Your task to perform on an android device: turn off translation in the chrome app Image 0: 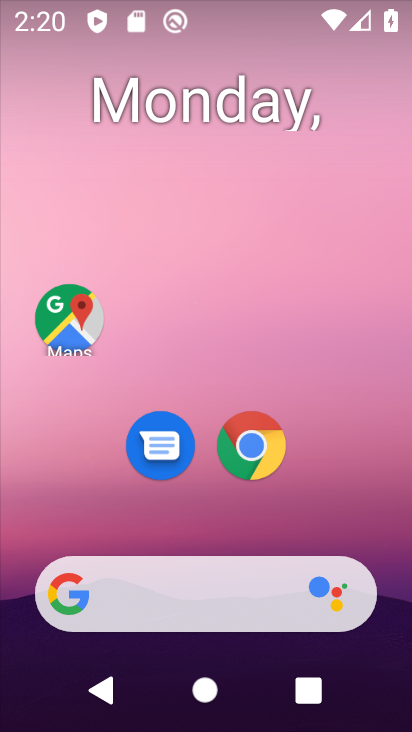
Step 0: click (258, 441)
Your task to perform on an android device: turn off translation in the chrome app Image 1: 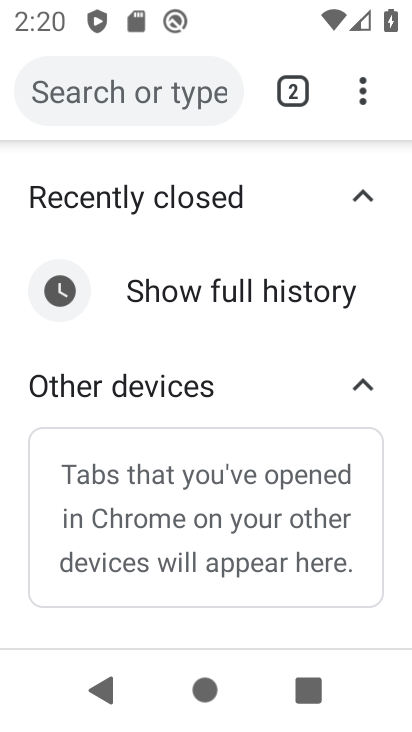
Step 1: click (354, 84)
Your task to perform on an android device: turn off translation in the chrome app Image 2: 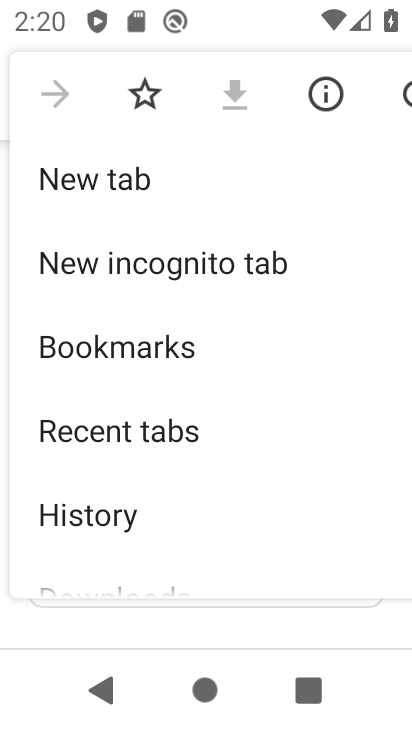
Step 2: drag from (100, 543) to (218, 136)
Your task to perform on an android device: turn off translation in the chrome app Image 3: 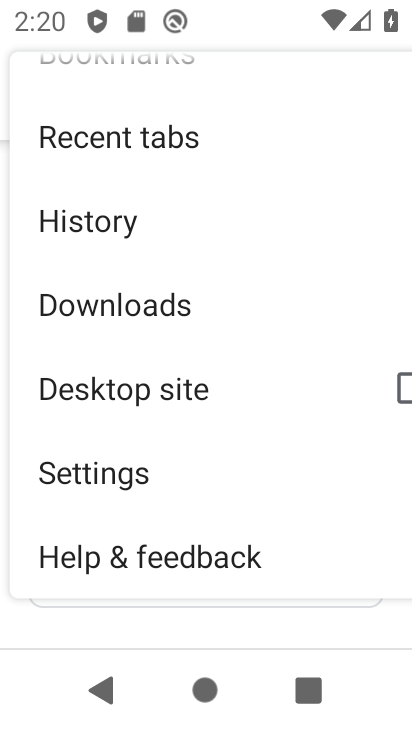
Step 3: click (100, 468)
Your task to perform on an android device: turn off translation in the chrome app Image 4: 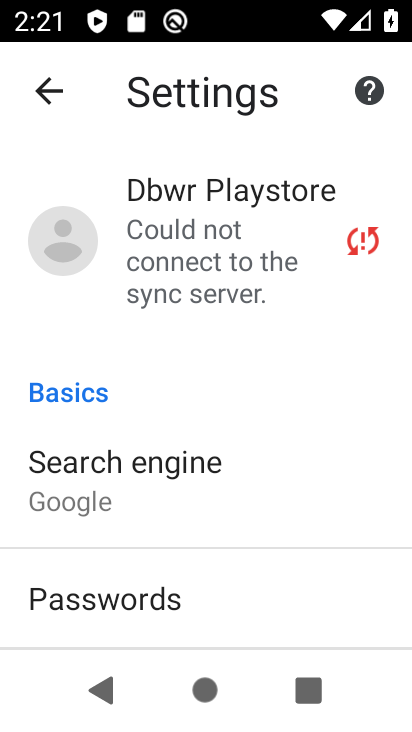
Step 4: drag from (73, 548) to (140, 168)
Your task to perform on an android device: turn off translation in the chrome app Image 5: 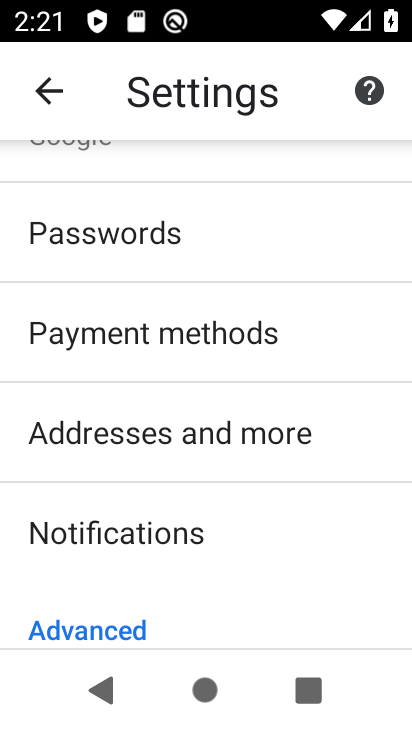
Step 5: drag from (94, 578) to (232, 231)
Your task to perform on an android device: turn off translation in the chrome app Image 6: 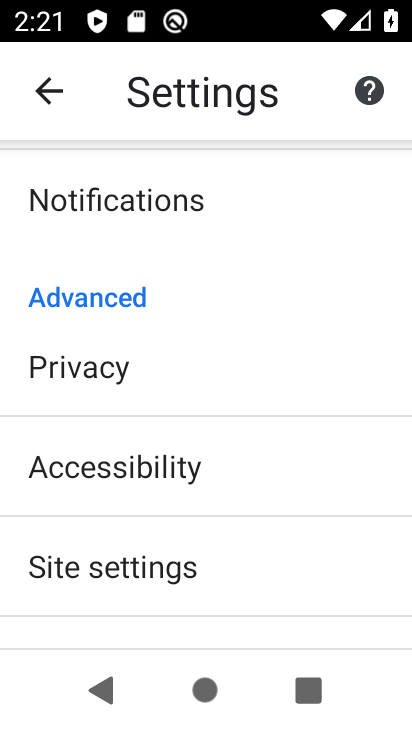
Step 6: drag from (110, 601) to (228, 216)
Your task to perform on an android device: turn off translation in the chrome app Image 7: 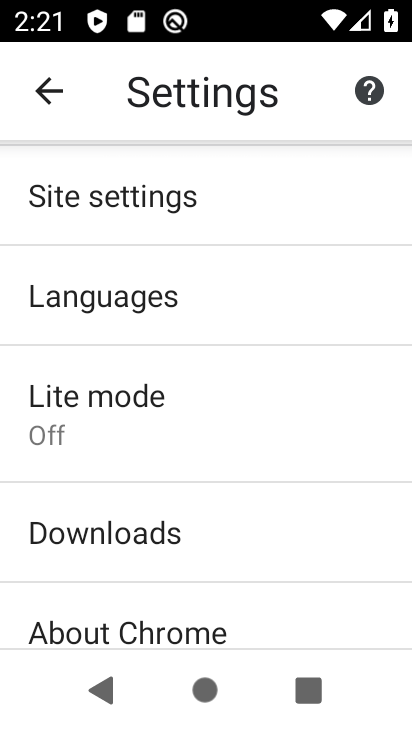
Step 7: click (129, 316)
Your task to perform on an android device: turn off translation in the chrome app Image 8: 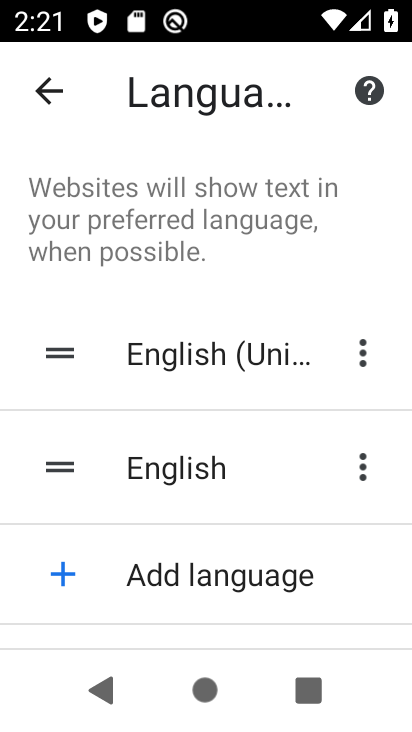
Step 8: drag from (104, 588) to (167, 201)
Your task to perform on an android device: turn off translation in the chrome app Image 9: 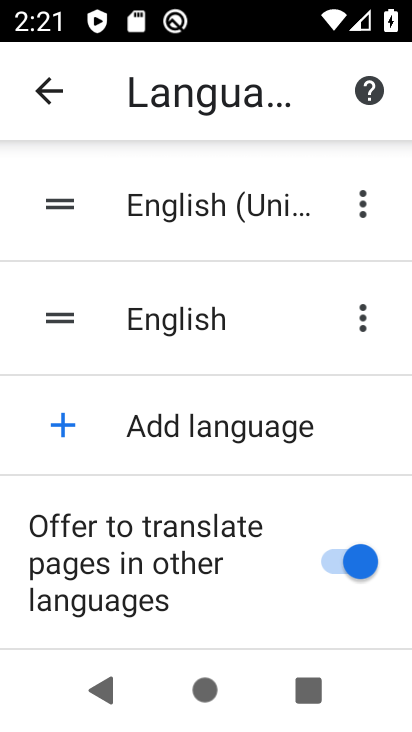
Step 9: click (337, 554)
Your task to perform on an android device: turn off translation in the chrome app Image 10: 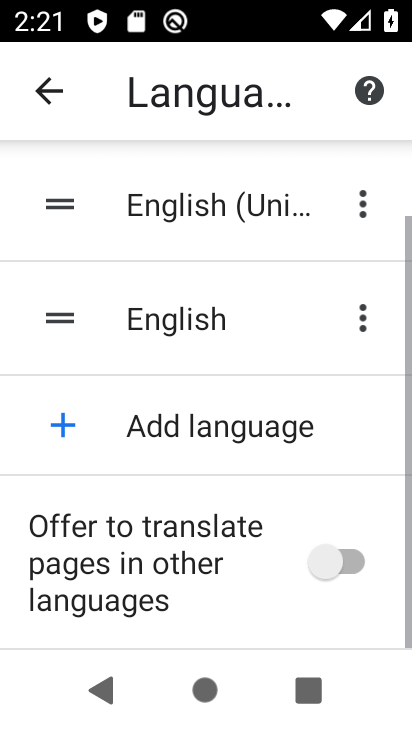
Step 10: task complete